Your task to perform on an android device: toggle notifications settings in the gmail app Image 0: 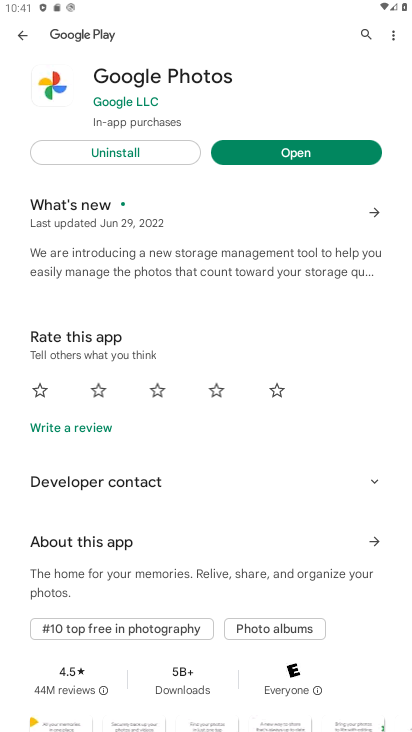
Step 0: press home button
Your task to perform on an android device: toggle notifications settings in the gmail app Image 1: 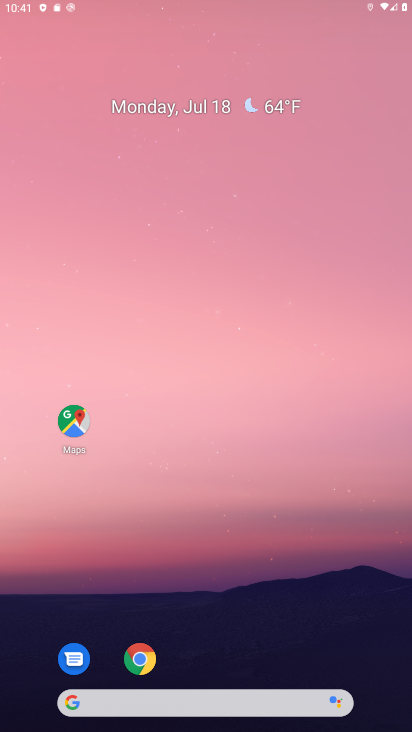
Step 1: drag from (236, 624) to (253, 0)
Your task to perform on an android device: toggle notifications settings in the gmail app Image 2: 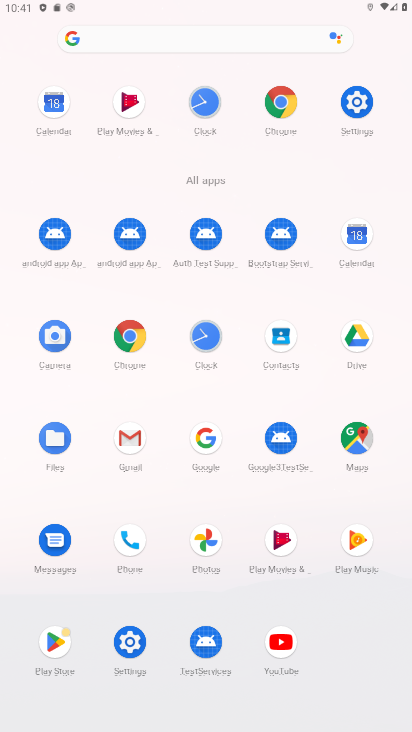
Step 2: click (125, 448)
Your task to perform on an android device: toggle notifications settings in the gmail app Image 3: 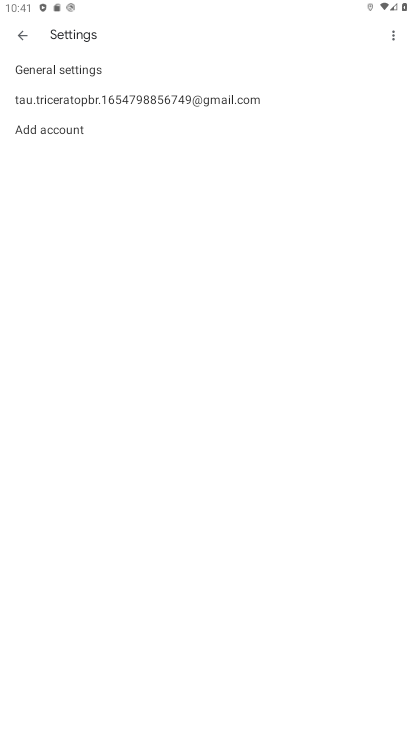
Step 3: press back button
Your task to perform on an android device: toggle notifications settings in the gmail app Image 4: 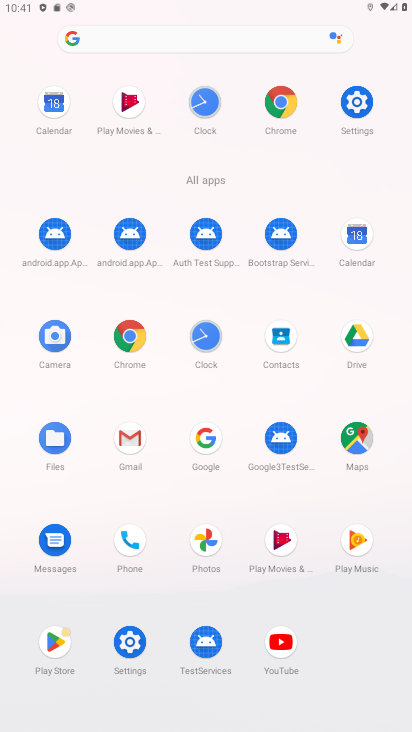
Step 4: click (109, 437)
Your task to perform on an android device: toggle notifications settings in the gmail app Image 5: 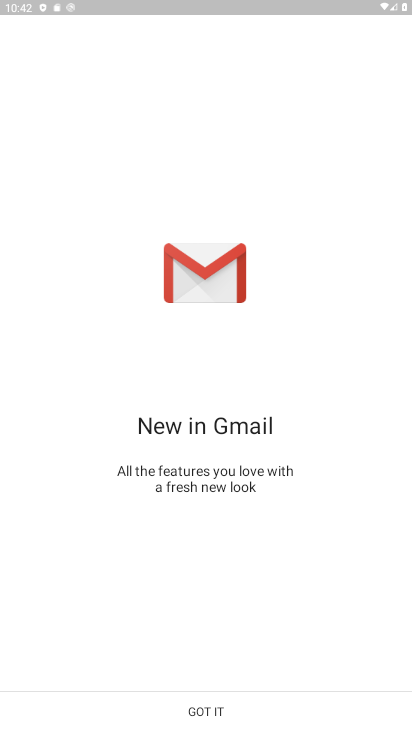
Step 5: click (209, 708)
Your task to perform on an android device: toggle notifications settings in the gmail app Image 6: 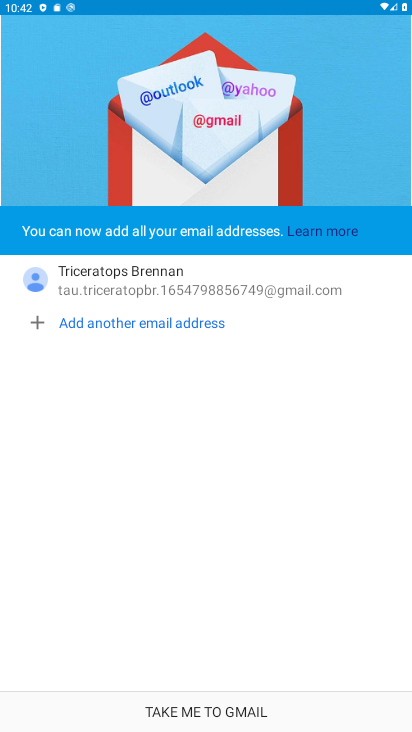
Step 6: click (209, 708)
Your task to perform on an android device: toggle notifications settings in the gmail app Image 7: 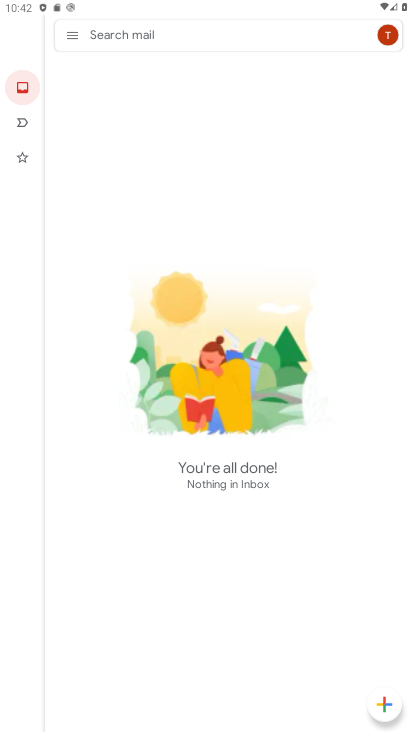
Step 7: click (76, 34)
Your task to perform on an android device: toggle notifications settings in the gmail app Image 8: 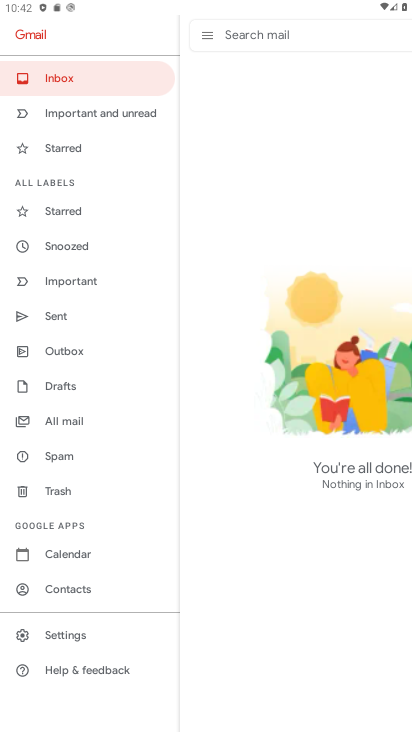
Step 8: click (74, 629)
Your task to perform on an android device: toggle notifications settings in the gmail app Image 9: 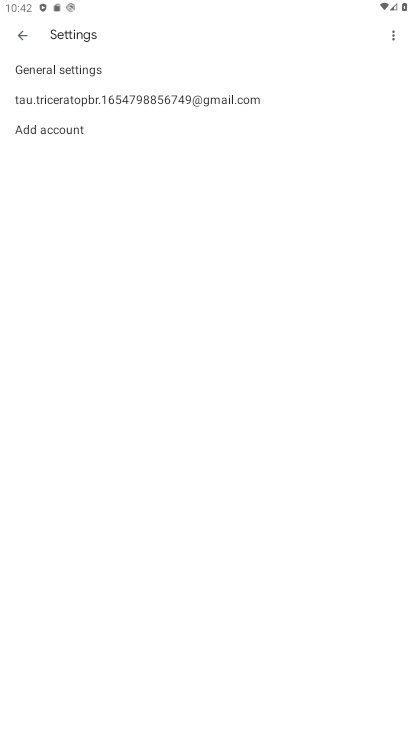
Step 9: click (90, 103)
Your task to perform on an android device: toggle notifications settings in the gmail app Image 10: 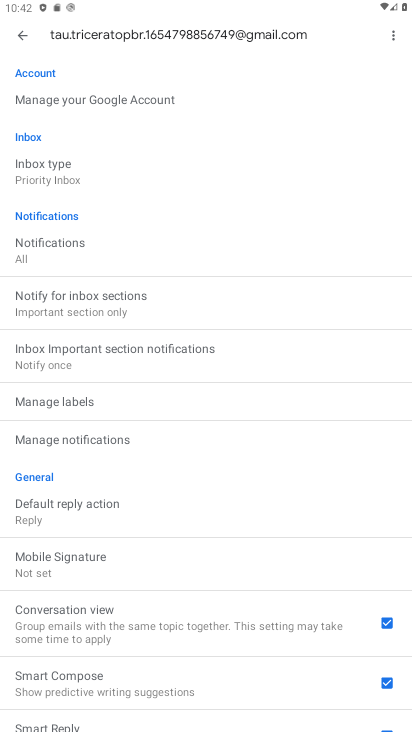
Step 10: click (96, 438)
Your task to perform on an android device: toggle notifications settings in the gmail app Image 11: 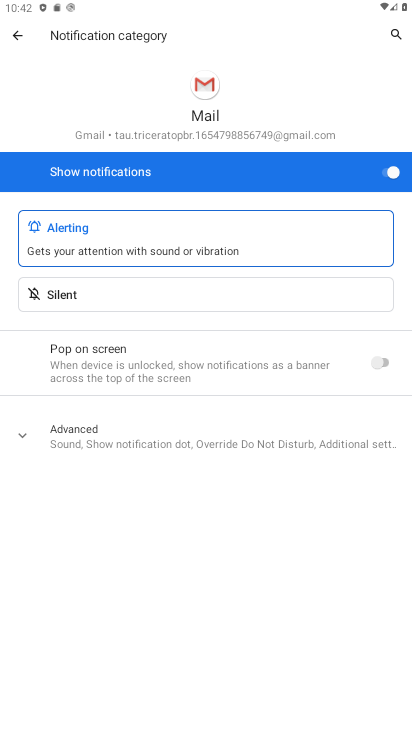
Step 11: click (390, 174)
Your task to perform on an android device: toggle notifications settings in the gmail app Image 12: 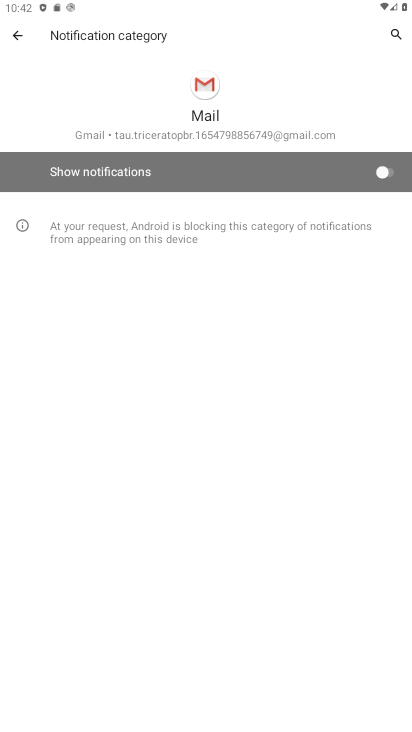
Step 12: task complete